Your task to perform on an android device: turn off picture-in-picture Image 0: 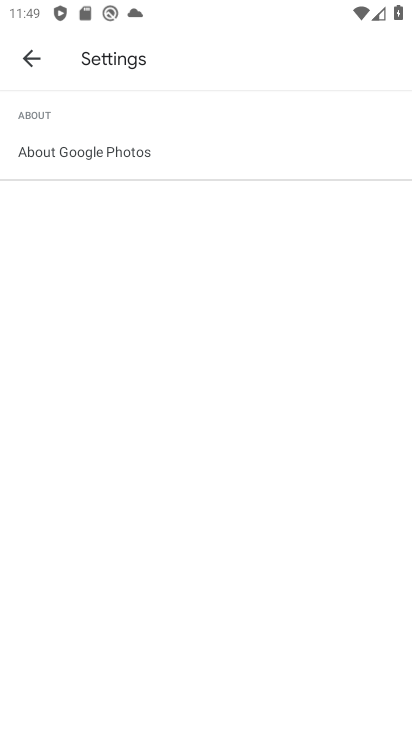
Step 0: press home button
Your task to perform on an android device: turn off picture-in-picture Image 1: 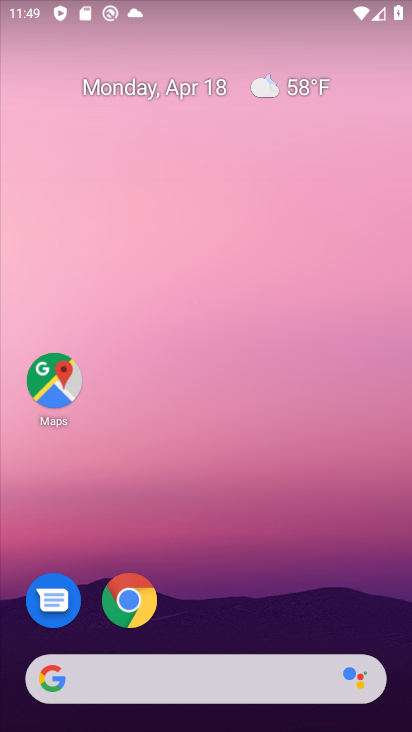
Step 1: drag from (273, 723) to (291, 245)
Your task to perform on an android device: turn off picture-in-picture Image 2: 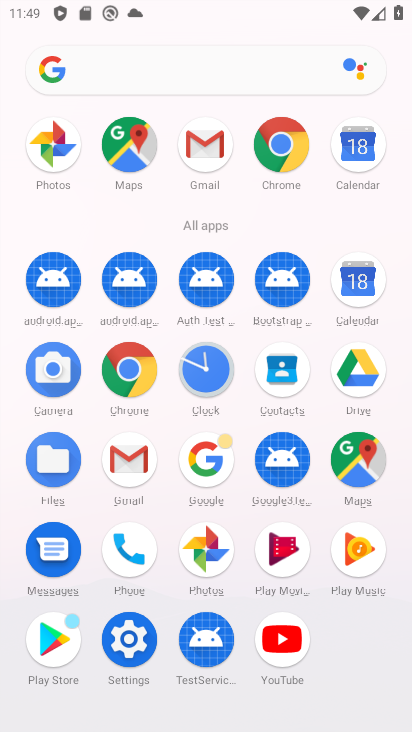
Step 2: click (136, 638)
Your task to perform on an android device: turn off picture-in-picture Image 3: 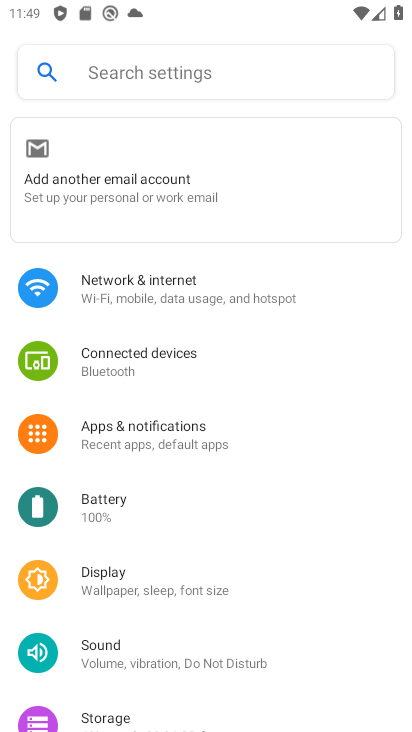
Step 3: click (169, 84)
Your task to perform on an android device: turn off picture-in-picture Image 4: 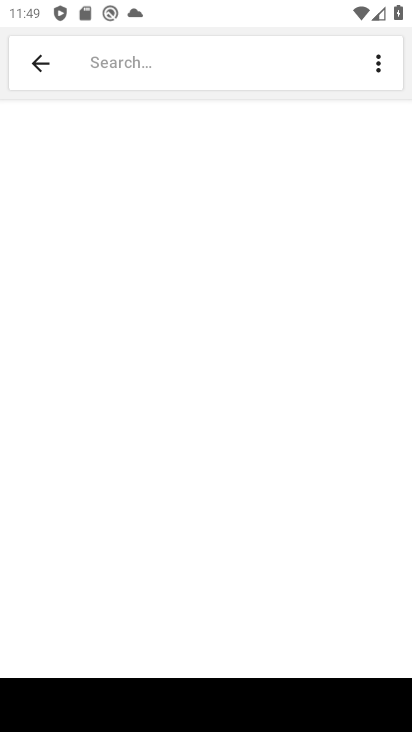
Step 4: drag from (374, 698) to (412, 615)
Your task to perform on an android device: turn off picture-in-picture Image 5: 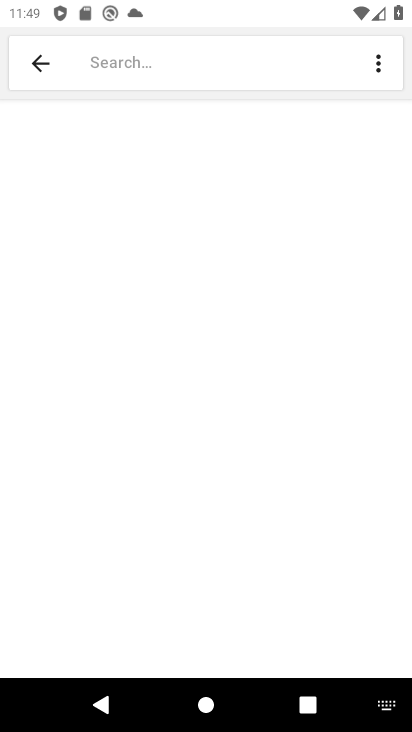
Step 5: click (385, 702)
Your task to perform on an android device: turn off picture-in-picture Image 6: 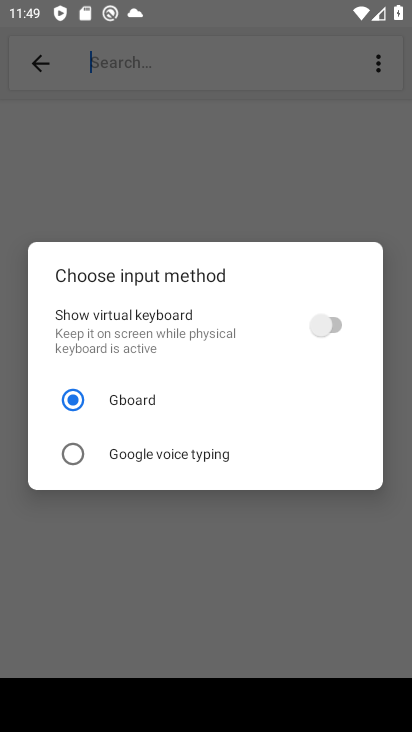
Step 6: click (306, 324)
Your task to perform on an android device: turn off picture-in-picture Image 7: 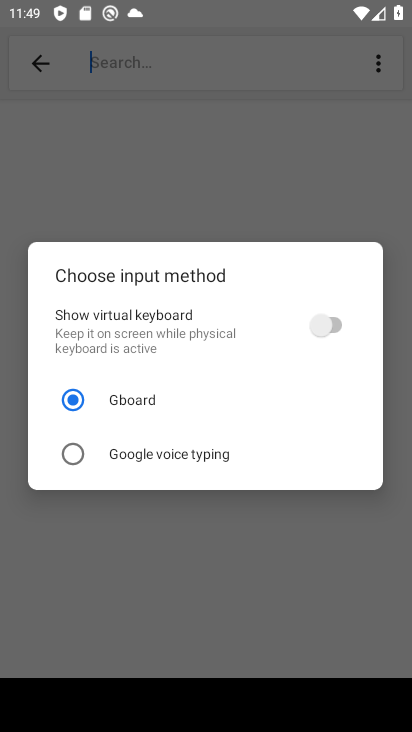
Step 7: click (331, 330)
Your task to perform on an android device: turn off picture-in-picture Image 8: 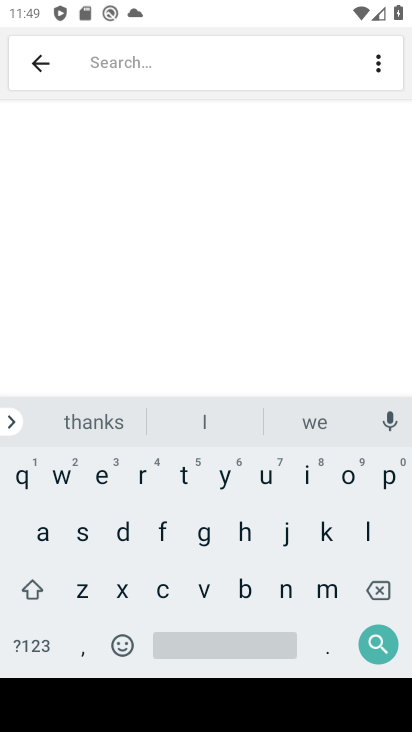
Step 8: click (375, 474)
Your task to perform on an android device: turn off picture-in-picture Image 9: 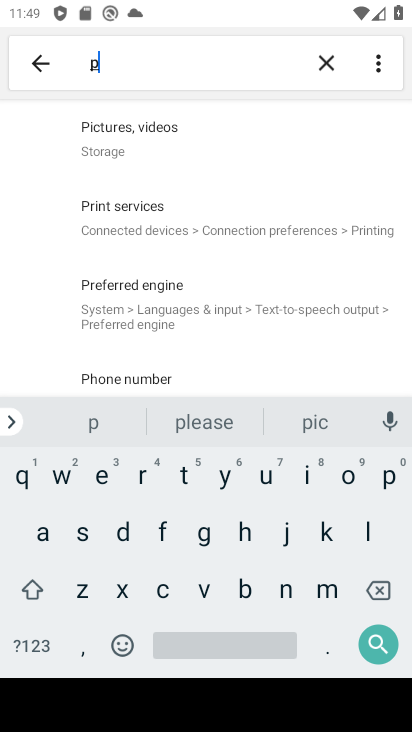
Step 9: click (304, 489)
Your task to perform on an android device: turn off picture-in-picture Image 10: 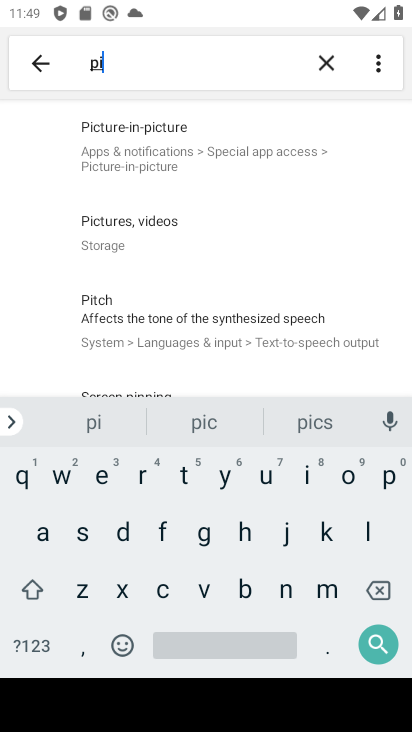
Step 10: click (183, 146)
Your task to perform on an android device: turn off picture-in-picture Image 11: 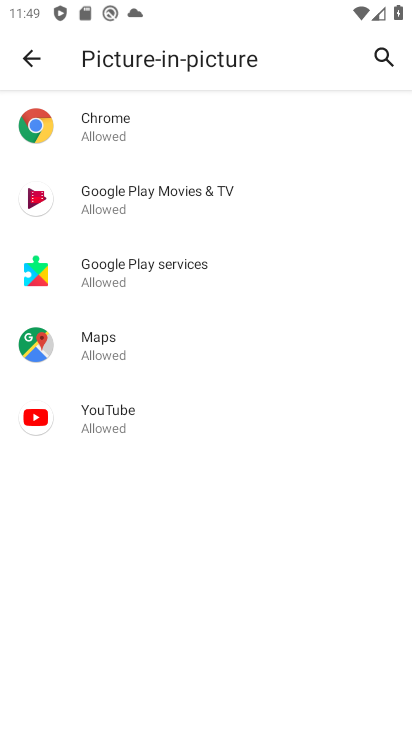
Step 11: task complete